Your task to perform on an android device: toggle sleep mode Image 0: 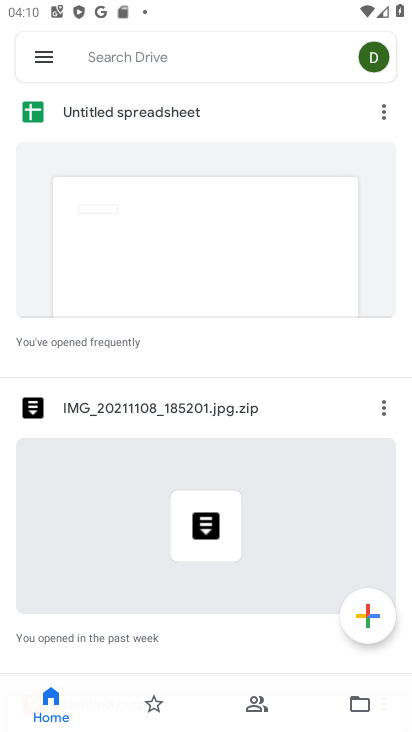
Step 0: press home button
Your task to perform on an android device: toggle sleep mode Image 1: 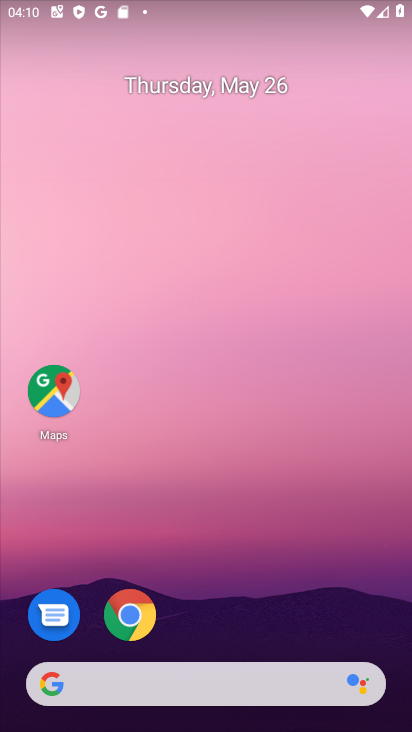
Step 1: task complete